Your task to perform on an android device: turn on improve location accuracy Image 0: 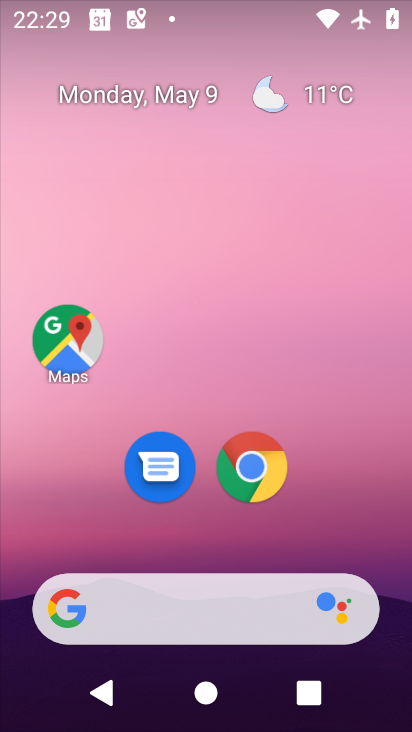
Step 0: drag from (353, 271) to (394, 54)
Your task to perform on an android device: turn on improve location accuracy Image 1: 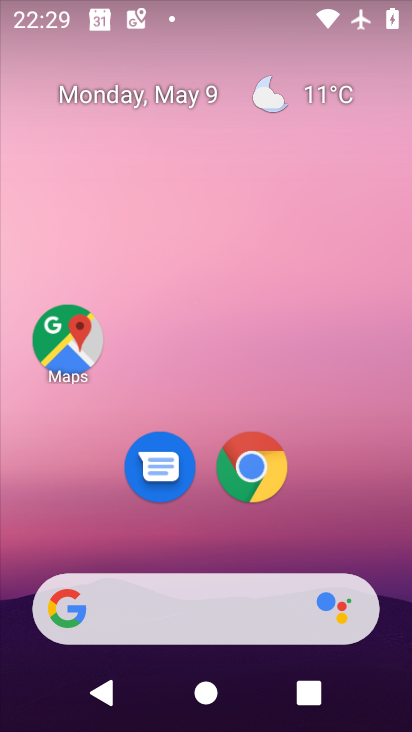
Step 1: drag from (312, 470) to (314, 128)
Your task to perform on an android device: turn on improve location accuracy Image 2: 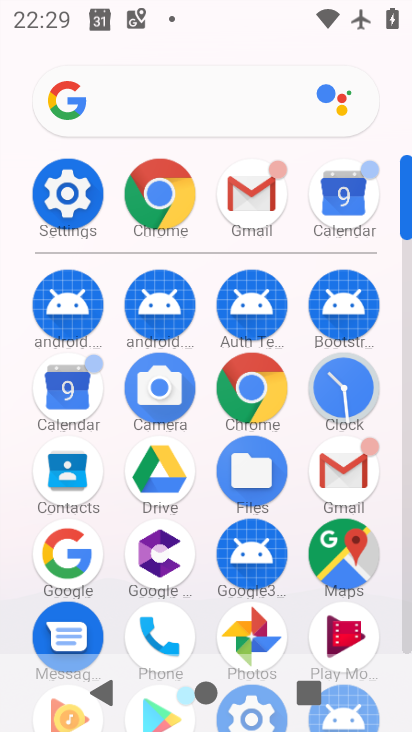
Step 2: click (64, 193)
Your task to perform on an android device: turn on improve location accuracy Image 3: 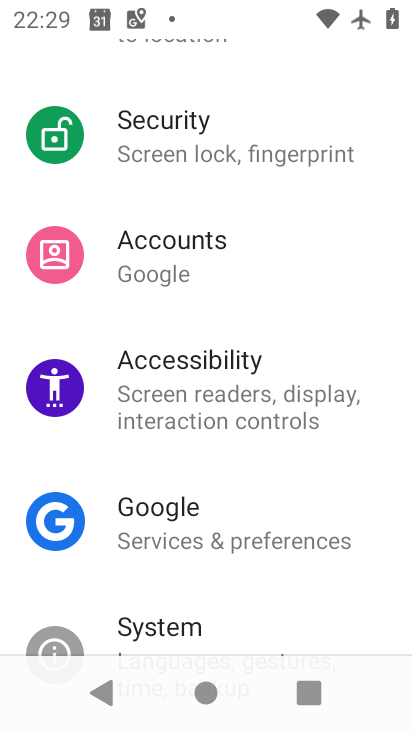
Step 3: drag from (219, 237) to (191, 434)
Your task to perform on an android device: turn on improve location accuracy Image 4: 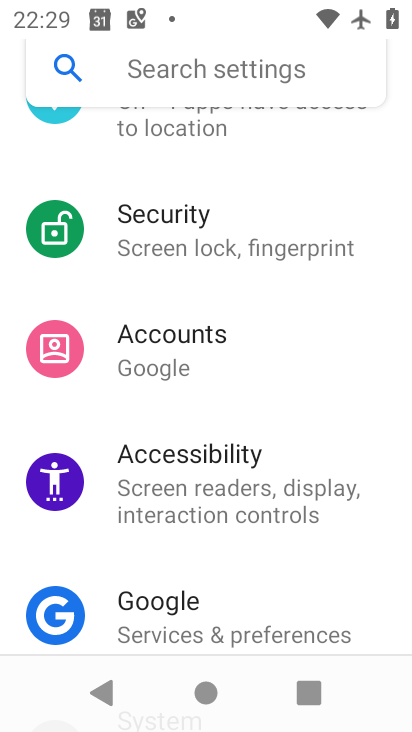
Step 4: drag from (225, 204) to (221, 565)
Your task to perform on an android device: turn on improve location accuracy Image 5: 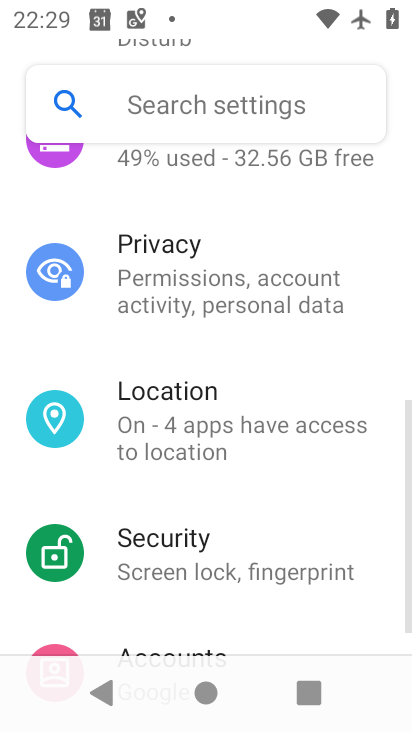
Step 5: click (194, 418)
Your task to perform on an android device: turn on improve location accuracy Image 6: 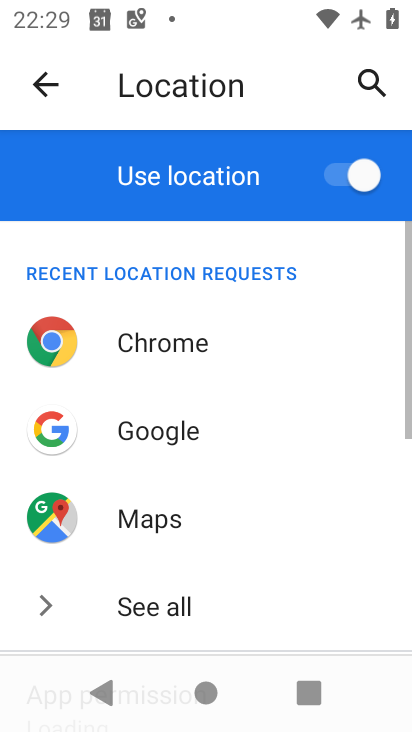
Step 6: drag from (214, 548) to (271, 223)
Your task to perform on an android device: turn on improve location accuracy Image 7: 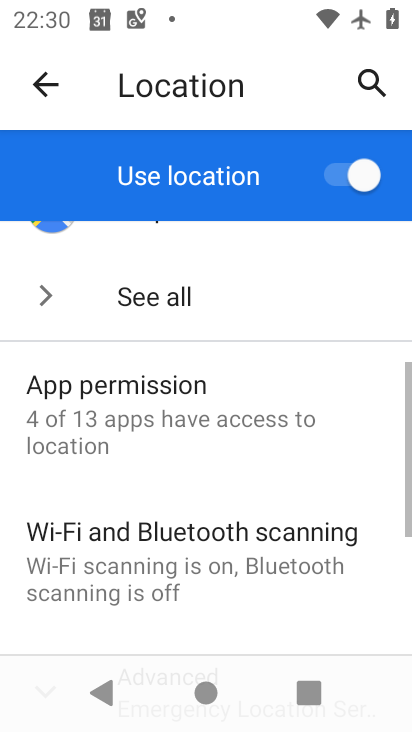
Step 7: drag from (187, 570) to (249, 380)
Your task to perform on an android device: turn on improve location accuracy Image 8: 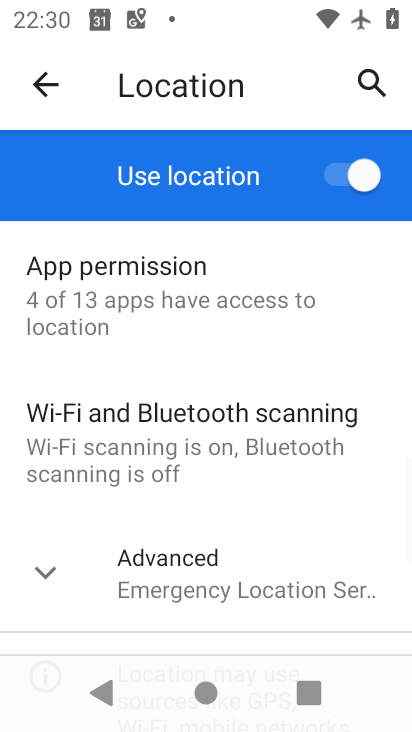
Step 8: click (188, 581)
Your task to perform on an android device: turn on improve location accuracy Image 9: 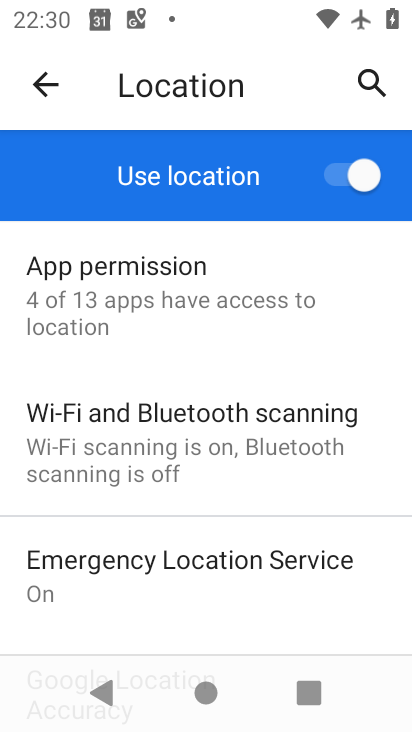
Step 9: drag from (204, 537) to (269, 338)
Your task to perform on an android device: turn on improve location accuracy Image 10: 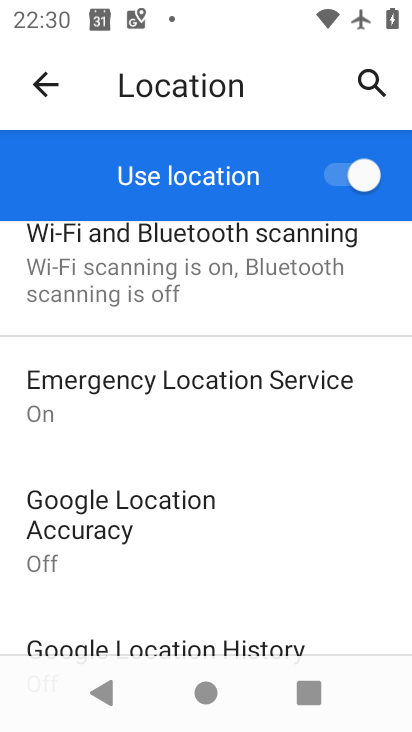
Step 10: click (133, 534)
Your task to perform on an android device: turn on improve location accuracy Image 11: 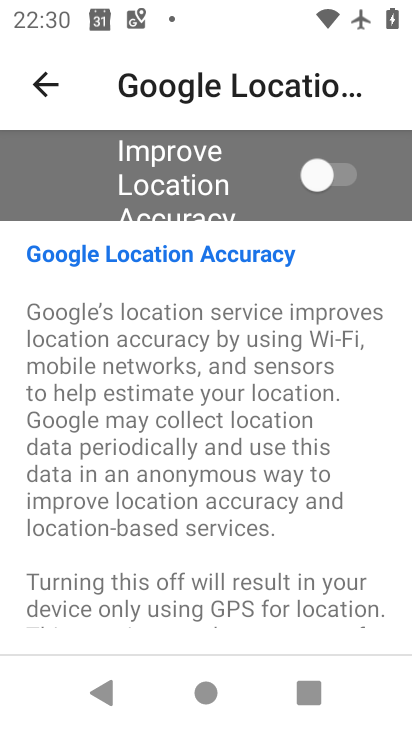
Step 11: click (333, 182)
Your task to perform on an android device: turn on improve location accuracy Image 12: 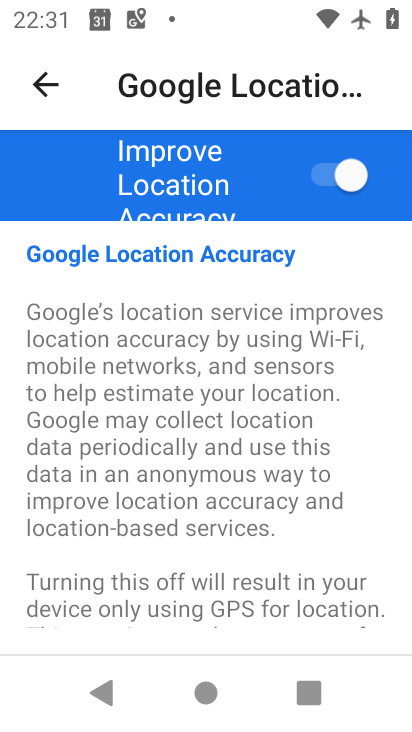
Step 12: task complete